Your task to perform on an android device: Go to Reddit.com Image 0: 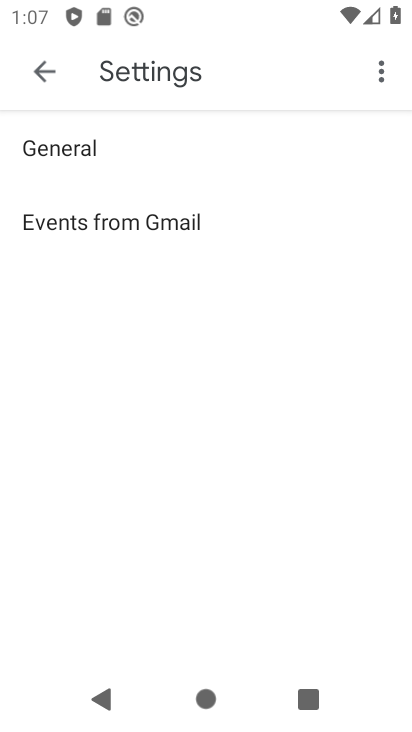
Step 0: press home button
Your task to perform on an android device: Go to Reddit.com Image 1: 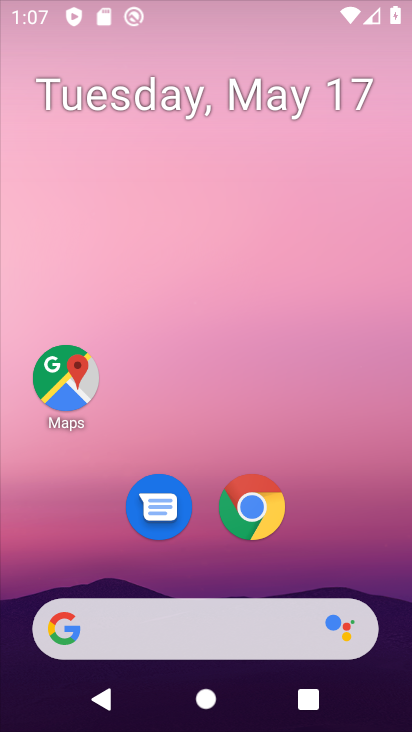
Step 1: drag from (214, 578) to (256, 303)
Your task to perform on an android device: Go to Reddit.com Image 2: 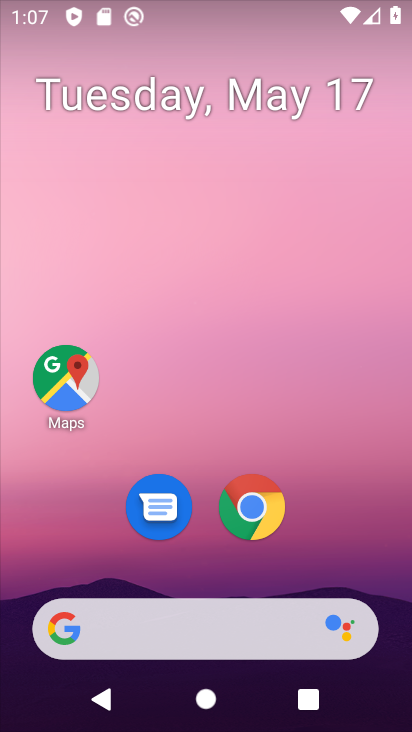
Step 2: click (239, 498)
Your task to perform on an android device: Go to Reddit.com Image 3: 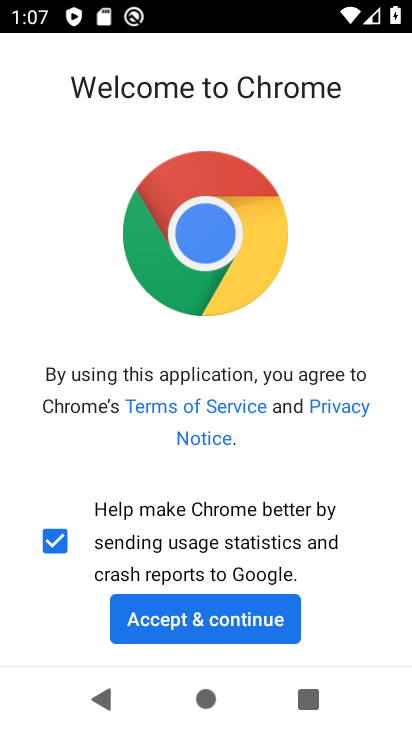
Step 3: click (204, 624)
Your task to perform on an android device: Go to Reddit.com Image 4: 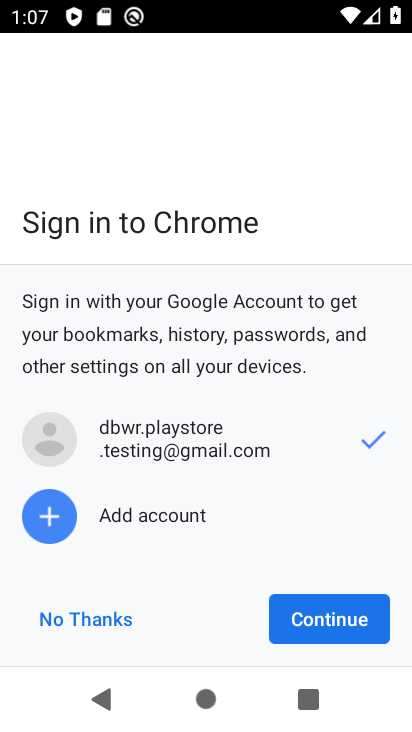
Step 4: click (289, 615)
Your task to perform on an android device: Go to Reddit.com Image 5: 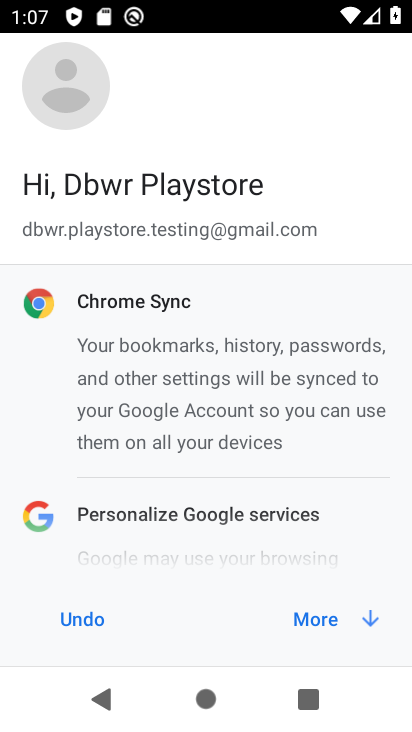
Step 5: click (319, 617)
Your task to perform on an android device: Go to Reddit.com Image 6: 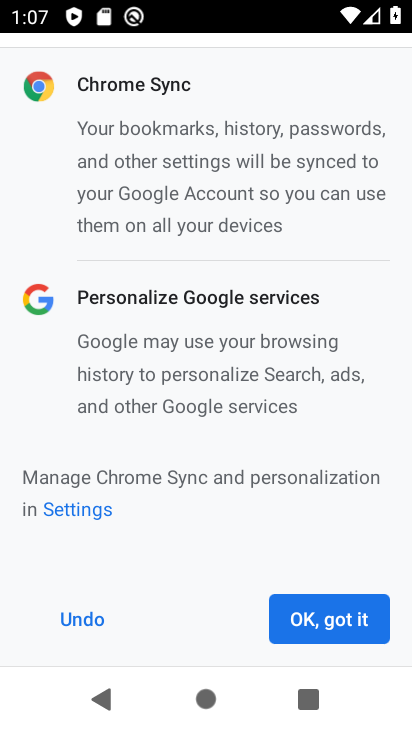
Step 6: click (319, 613)
Your task to perform on an android device: Go to Reddit.com Image 7: 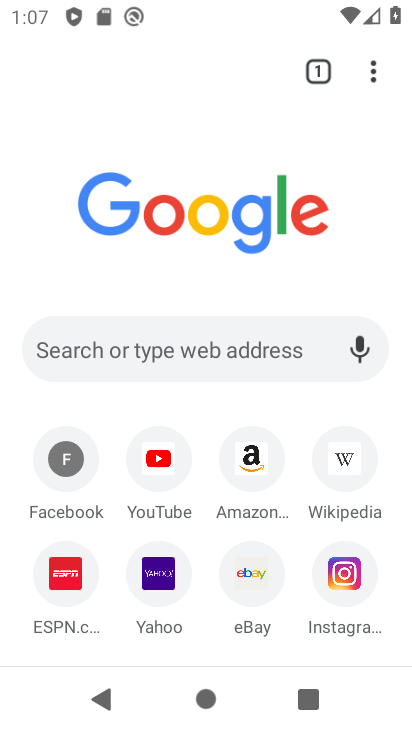
Step 7: click (144, 339)
Your task to perform on an android device: Go to Reddit.com Image 8: 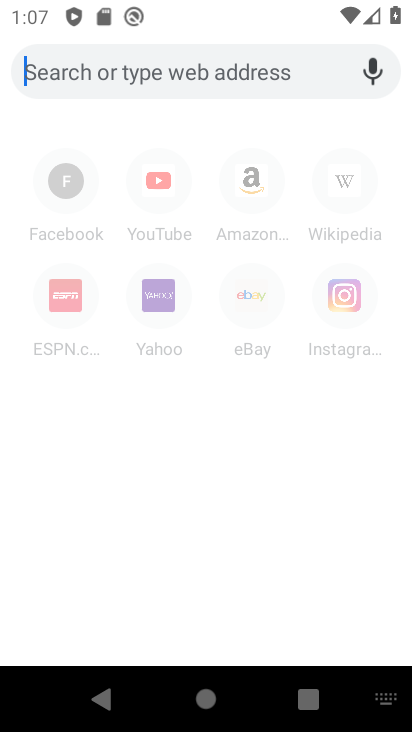
Step 8: type " Reddit.com"
Your task to perform on an android device: Go to Reddit.com Image 9: 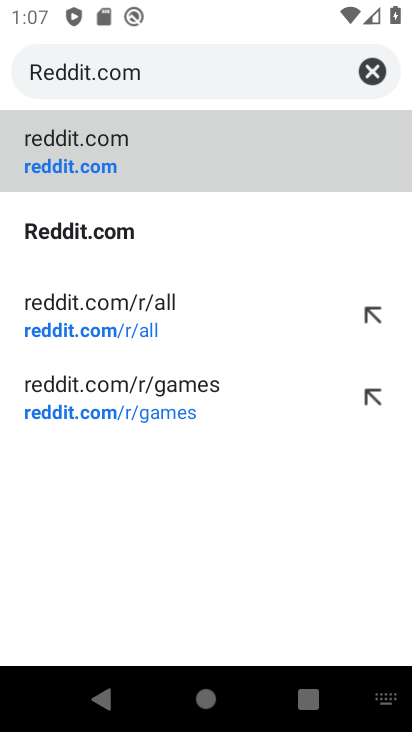
Step 9: click (304, 172)
Your task to perform on an android device: Go to Reddit.com Image 10: 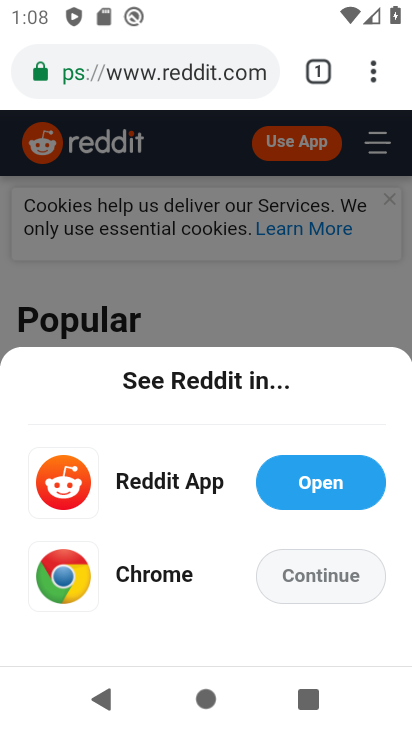
Step 10: task complete